Your task to perform on an android device: Open the calendar and show me this week's events Image 0: 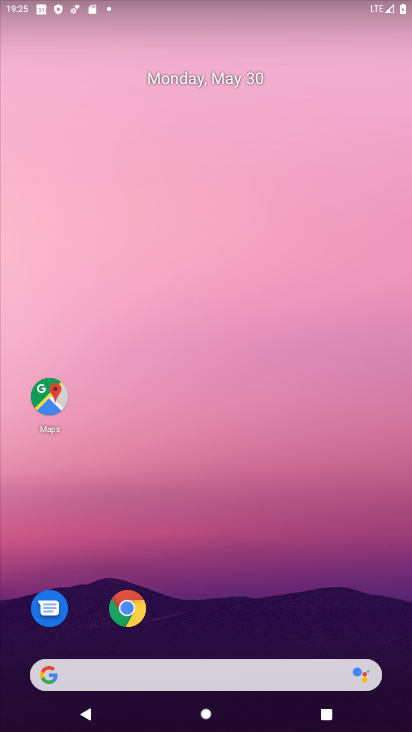
Step 0: drag from (195, 583) to (314, 51)
Your task to perform on an android device: Open the calendar and show me this week's events Image 1: 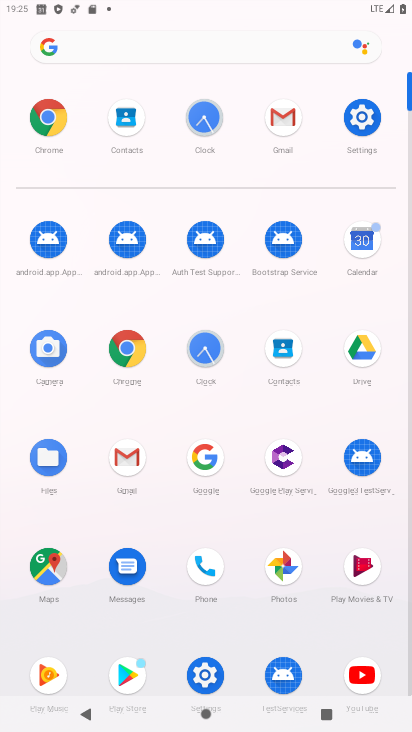
Step 1: click (373, 238)
Your task to perform on an android device: Open the calendar and show me this week's events Image 2: 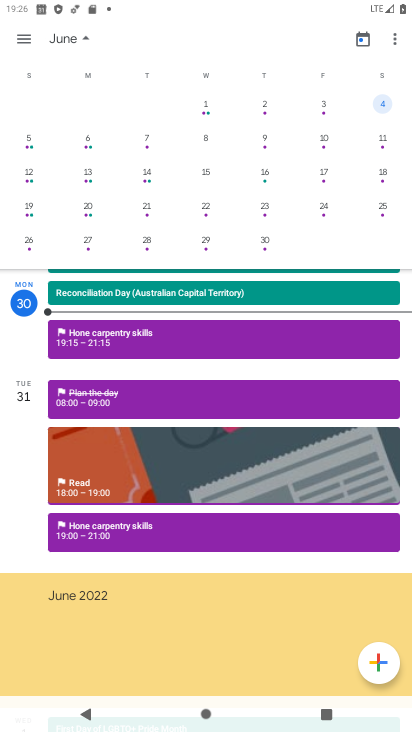
Step 2: drag from (66, 106) to (364, 106)
Your task to perform on an android device: Open the calendar and show me this week's events Image 3: 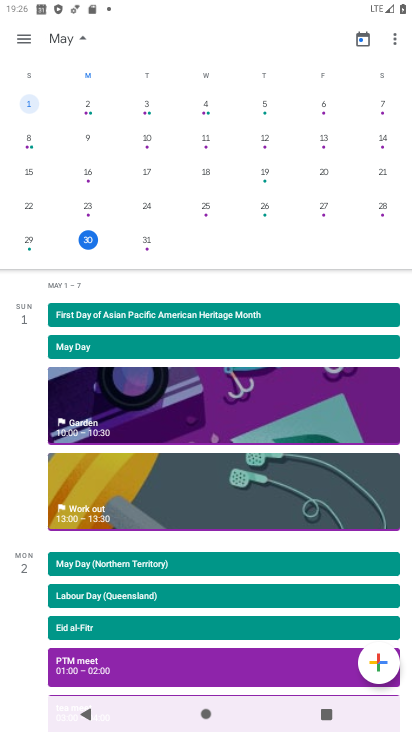
Step 3: click (143, 247)
Your task to perform on an android device: Open the calendar and show me this week's events Image 4: 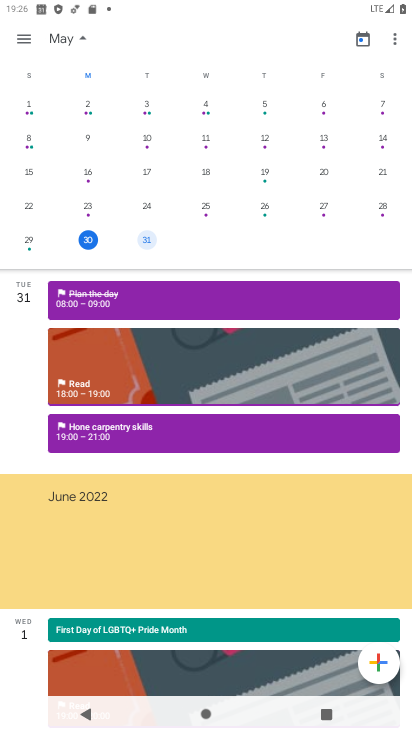
Step 4: drag from (367, 240) to (111, 230)
Your task to perform on an android device: Open the calendar and show me this week's events Image 5: 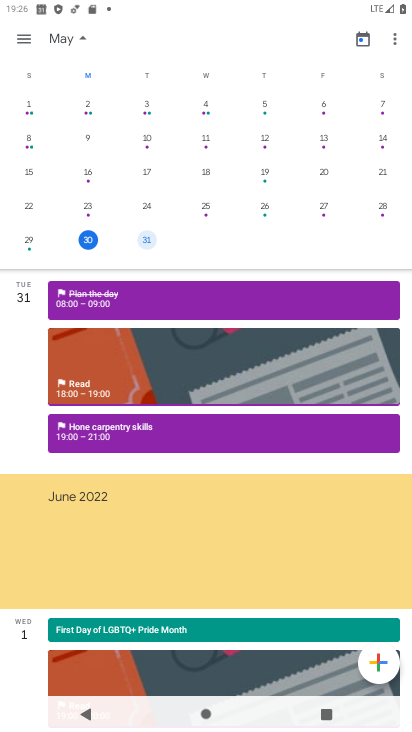
Step 5: click (263, 111)
Your task to perform on an android device: Open the calendar and show me this week's events Image 6: 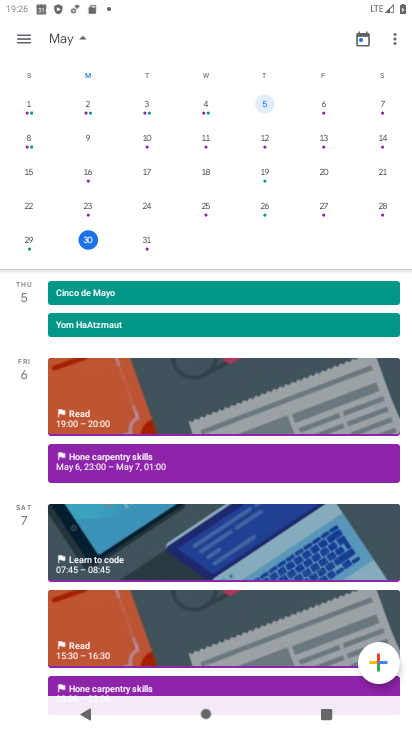
Step 6: click (324, 105)
Your task to perform on an android device: Open the calendar and show me this week's events Image 7: 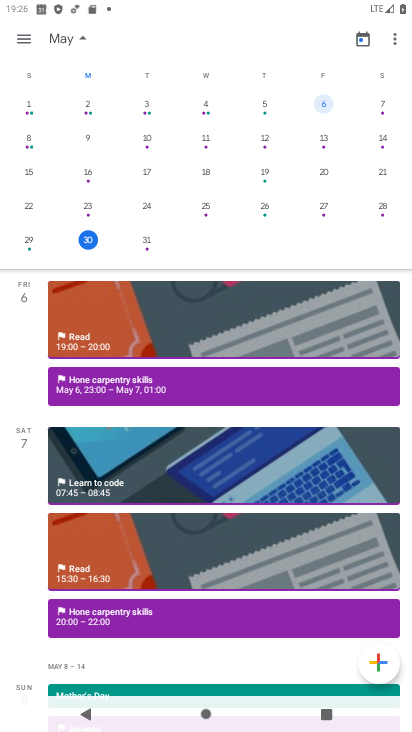
Step 7: click (383, 105)
Your task to perform on an android device: Open the calendar and show me this week's events Image 8: 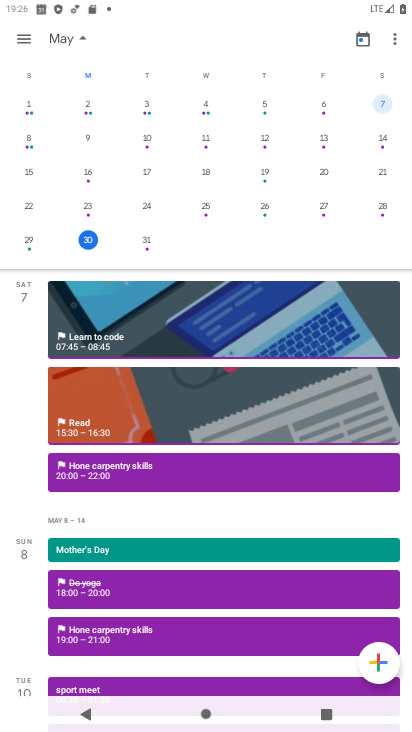
Step 8: click (195, 114)
Your task to perform on an android device: Open the calendar and show me this week's events Image 9: 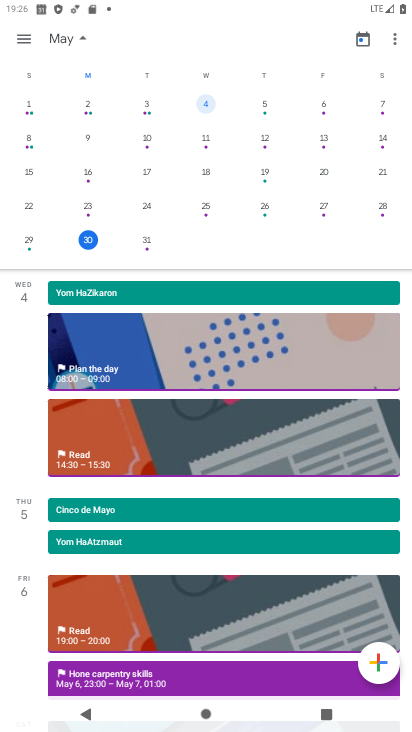
Step 9: click (134, 103)
Your task to perform on an android device: Open the calendar and show me this week's events Image 10: 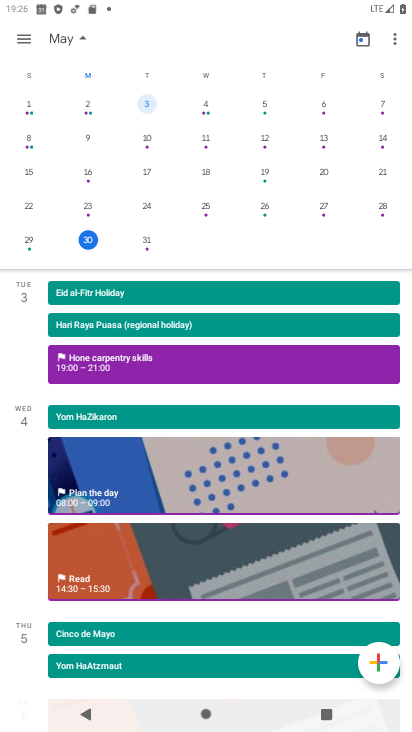
Step 10: click (101, 101)
Your task to perform on an android device: Open the calendar and show me this week's events Image 11: 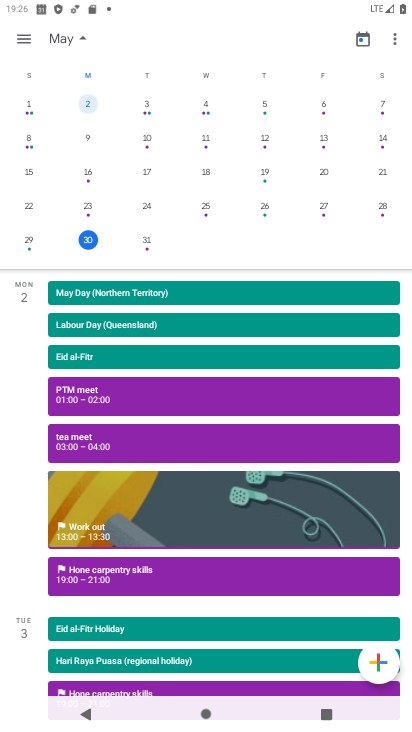
Step 11: task complete